Your task to perform on an android device: open device folders in google photos Image 0: 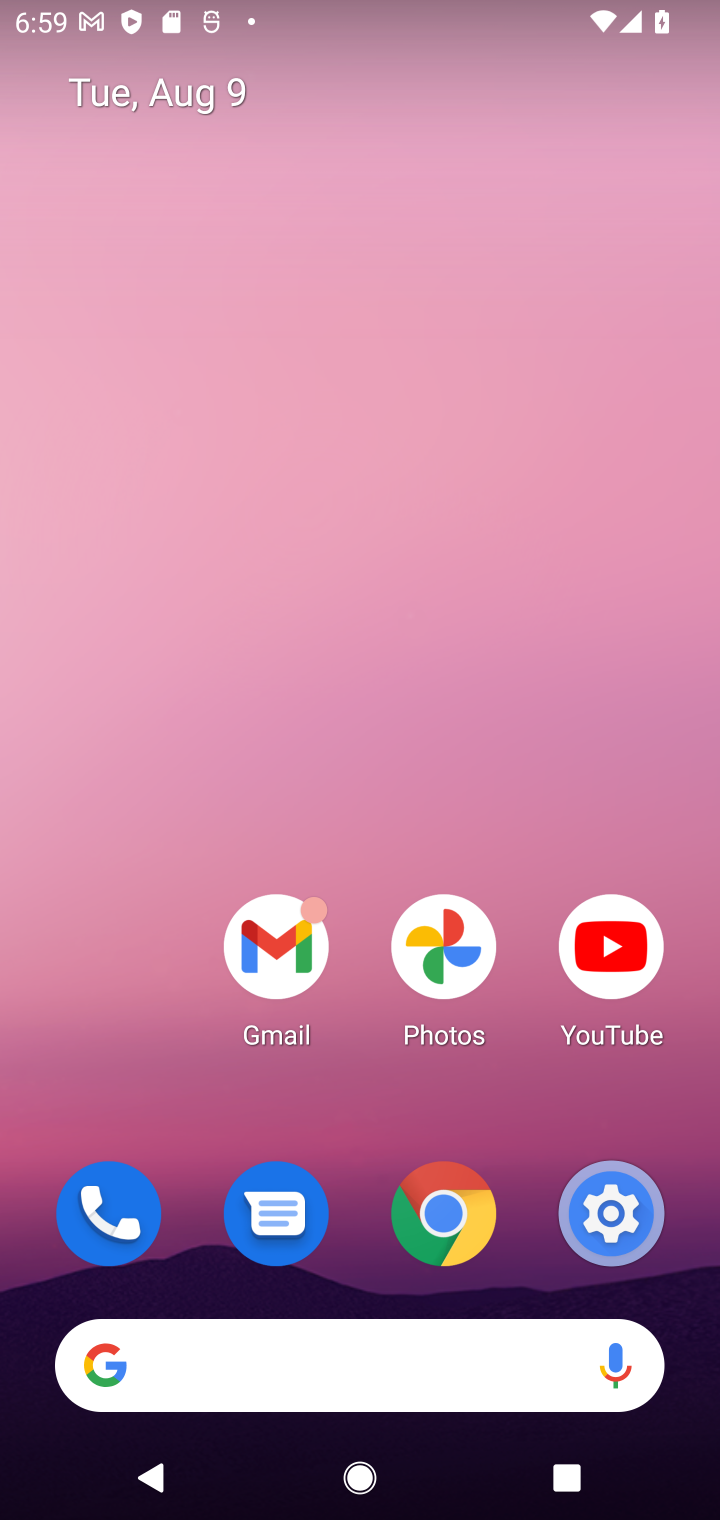
Step 0: click (478, 1014)
Your task to perform on an android device: open device folders in google photos Image 1: 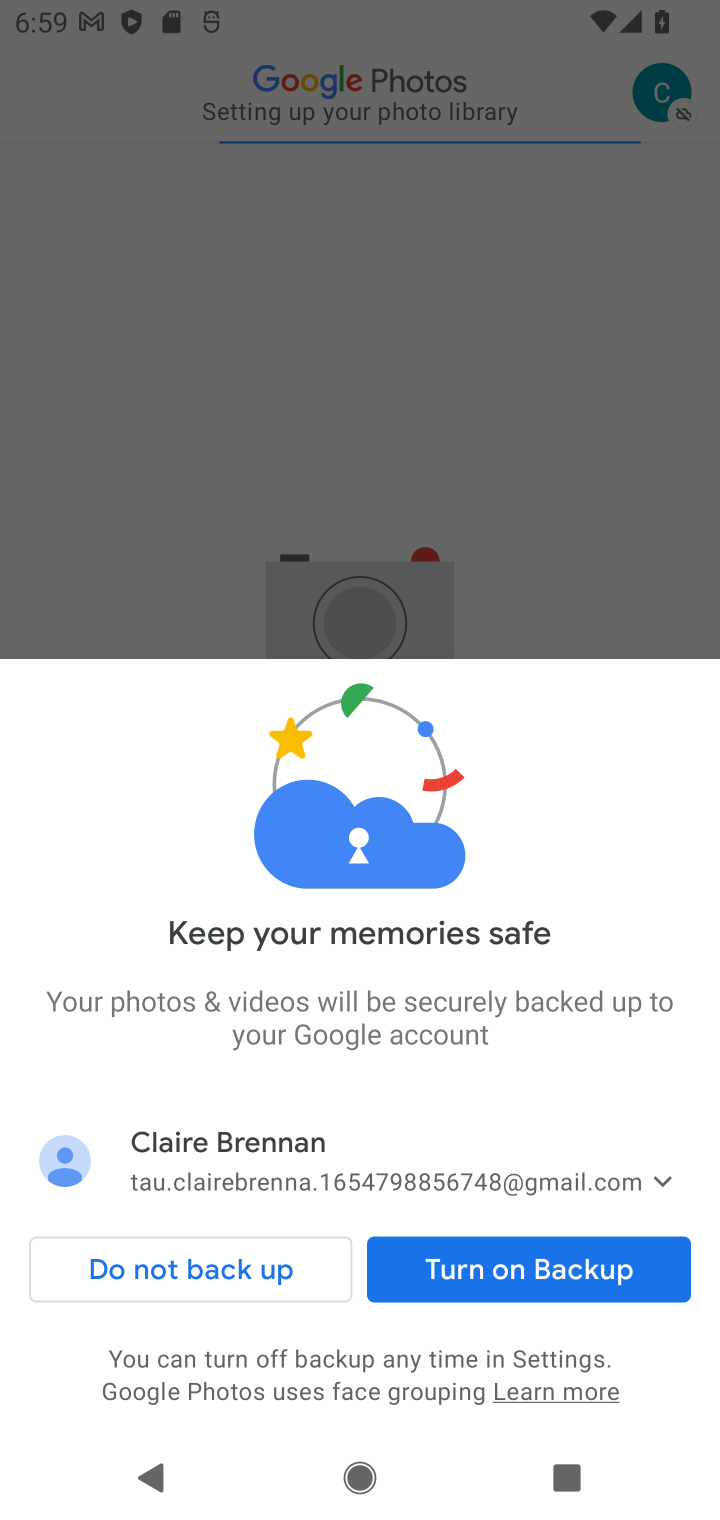
Step 1: click (521, 1246)
Your task to perform on an android device: open device folders in google photos Image 2: 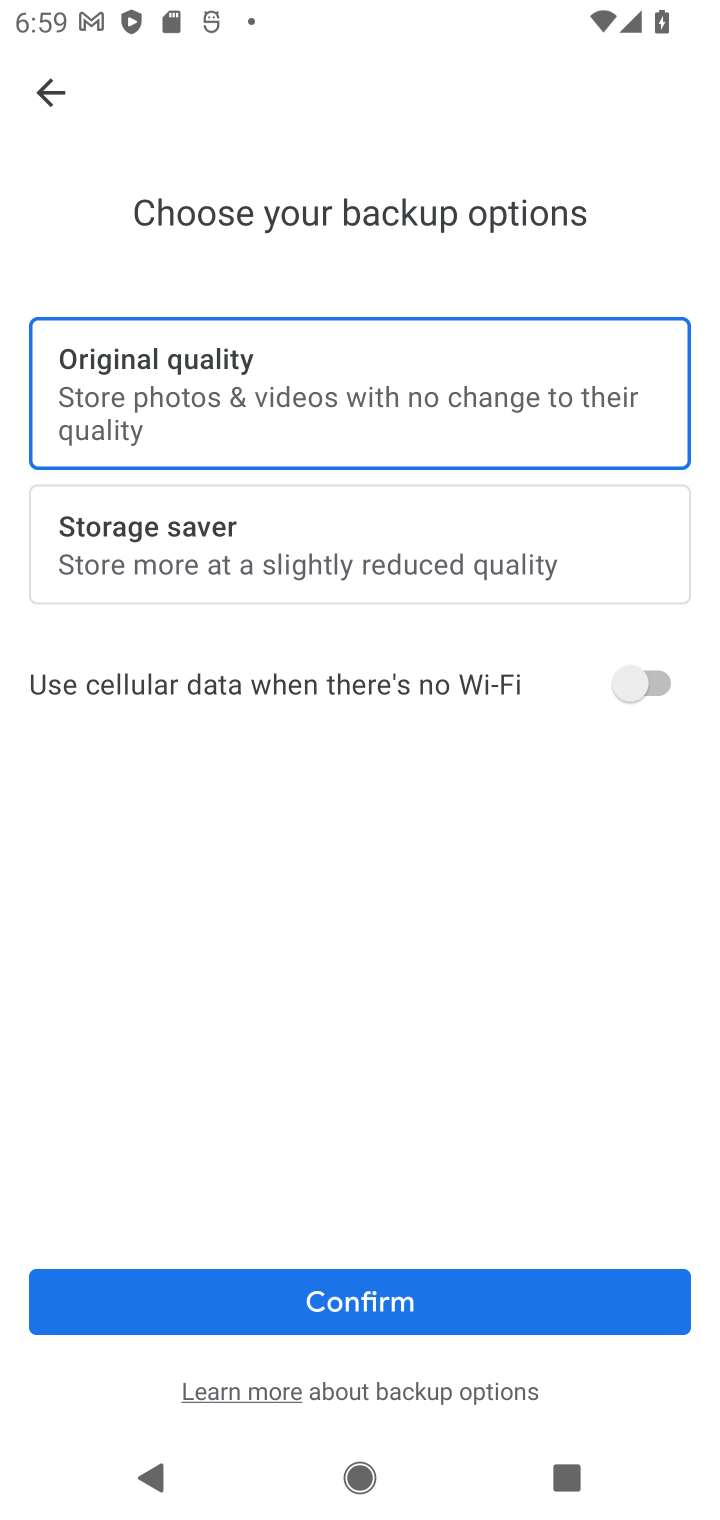
Step 2: click (427, 1287)
Your task to perform on an android device: open device folders in google photos Image 3: 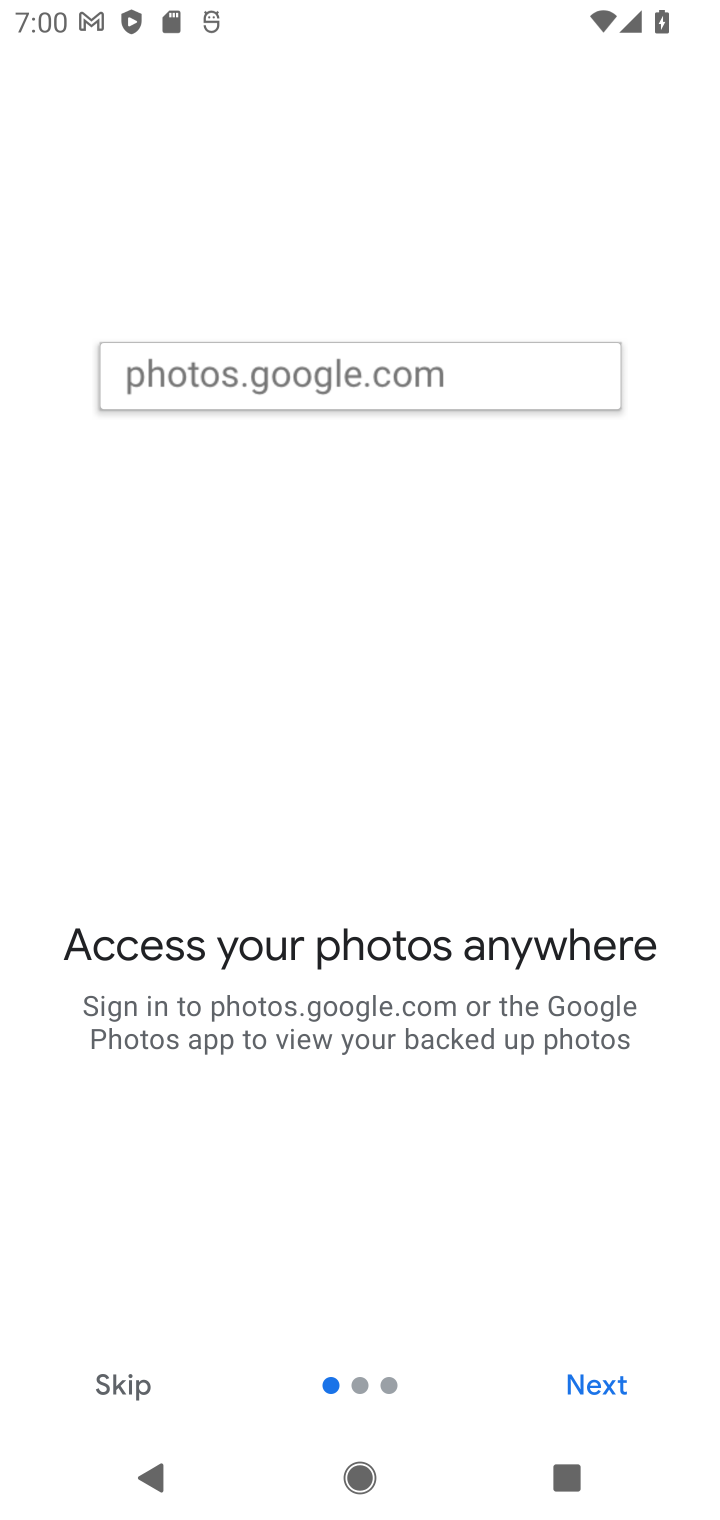
Step 3: click (595, 1388)
Your task to perform on an android device: open device folders in google photos Image 4: 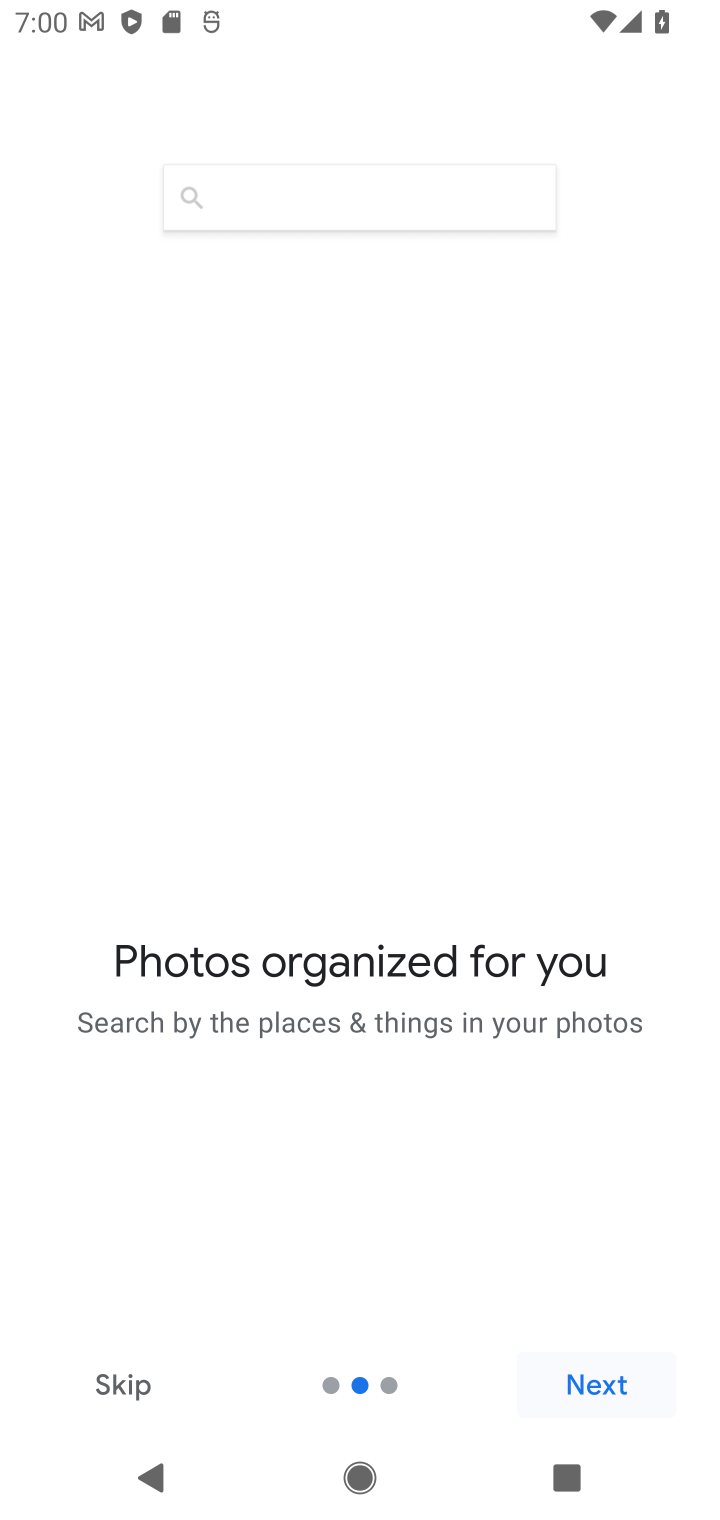
Step 4: click (537, 1388)
Your task to perform on an android device: open device folders in google photos Image 5: 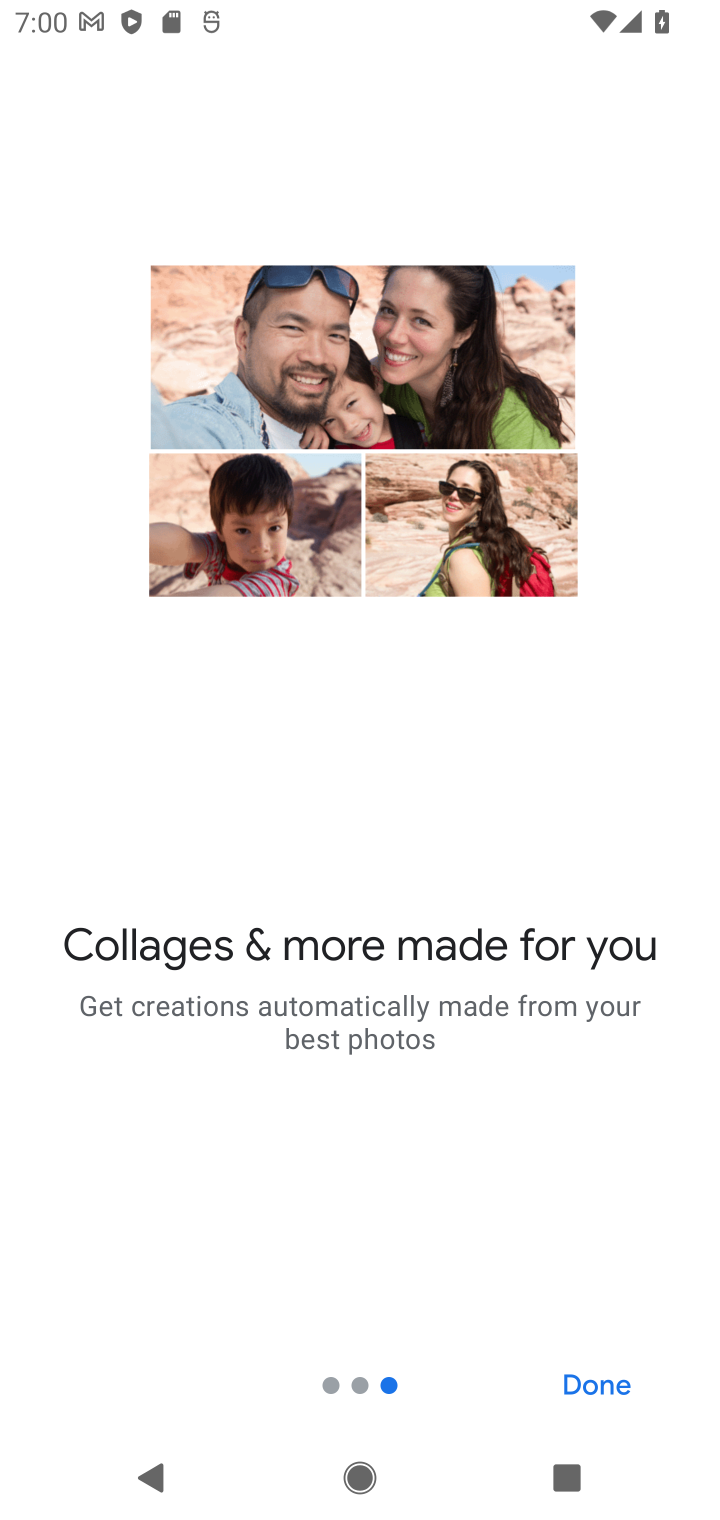
Step 5: click (592, 1382)
Your task to perform on an android device: open device folders in google photos Image 6: 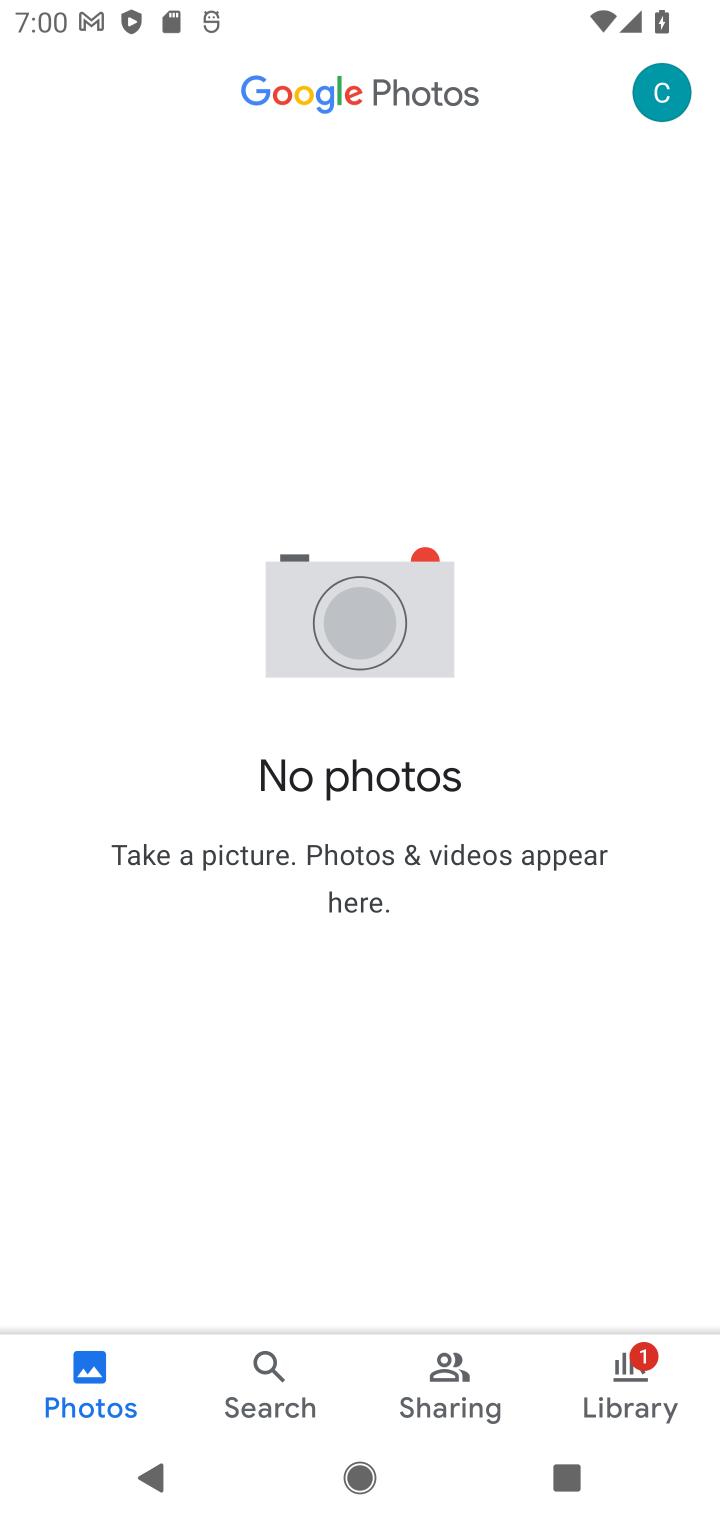
Step 6: click (663, 101)
Your task to perform on an android device: open device folders in google photos Image 7: 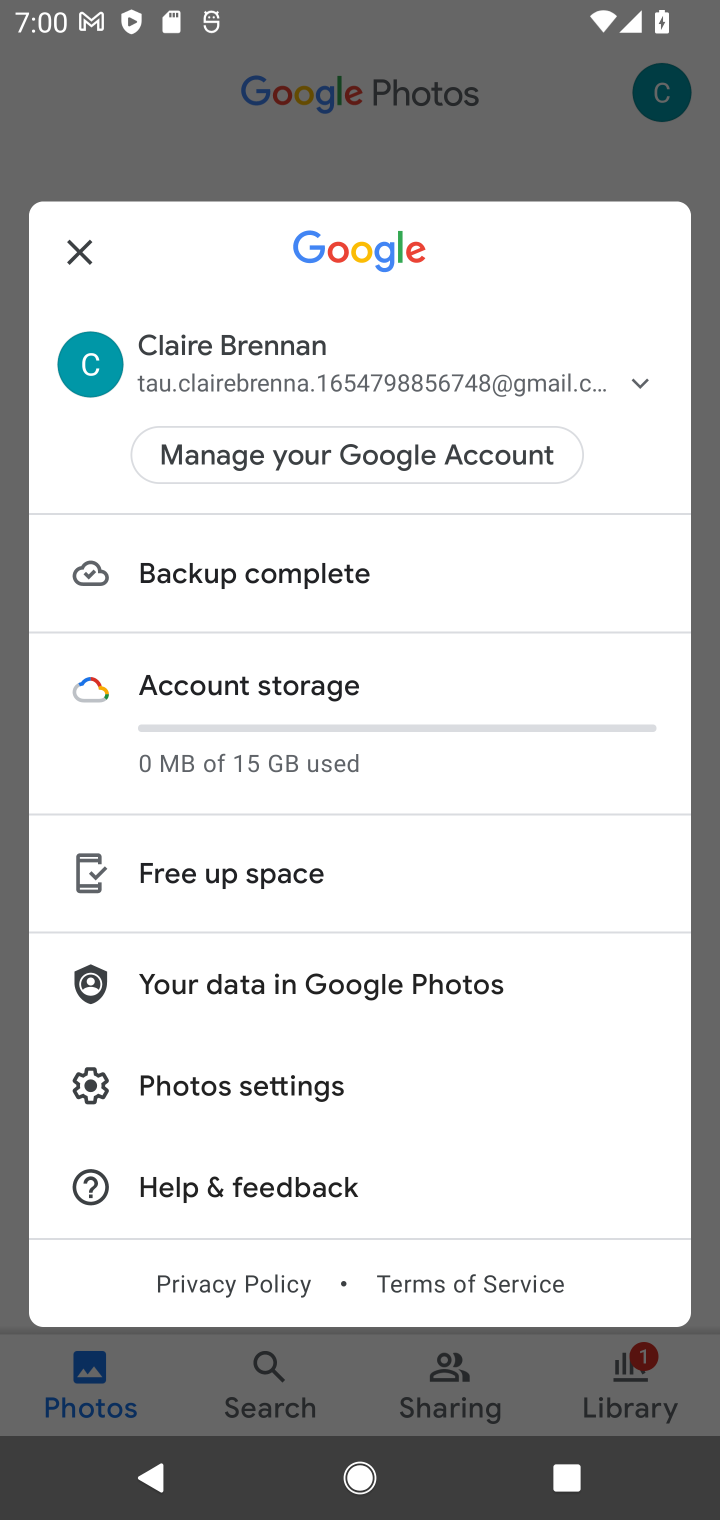
Step 7: task complete